Your task to perform on an android device: Go to Reddit.com Image 0: 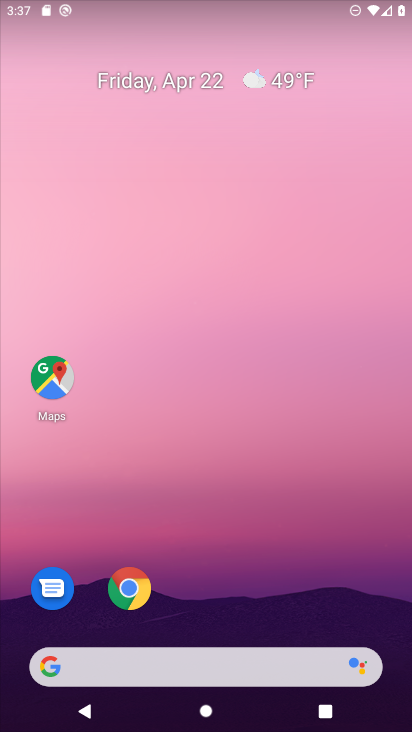
Step 0: click (232, 666)
Your task to perform on an android device: Go to Reddit.com Image 1: 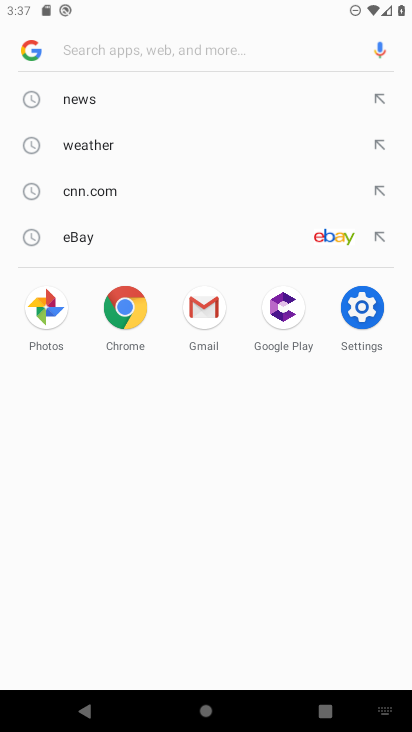
Step 1: type "Reddit.com"
Your task to perform on an android device: Go to Reddit.com Image 2: 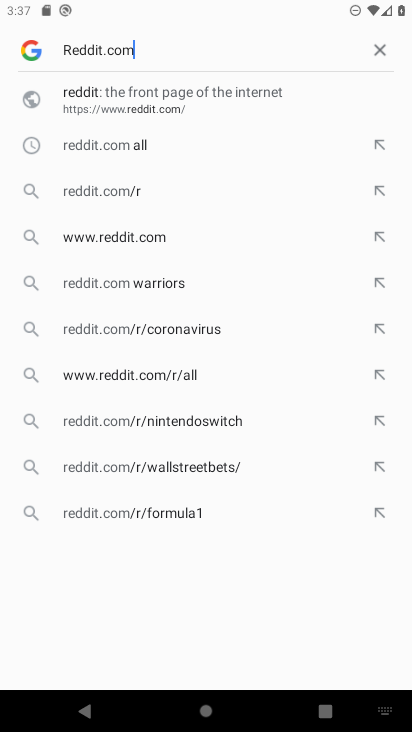
Step 2: click (157, 230)
Your task to perform on an android device: Go to Reddit.com Image 3: 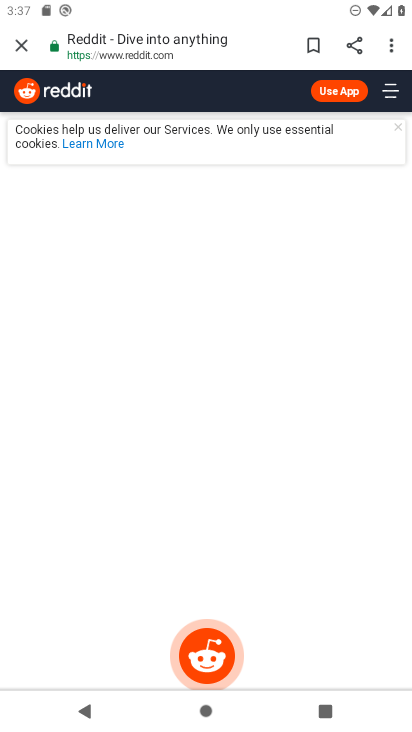
Step 3: task complete